Your task to perform on an android device: open app "Etsy: Buy & Sell Unique Items" (install if not already installed) Image 0: 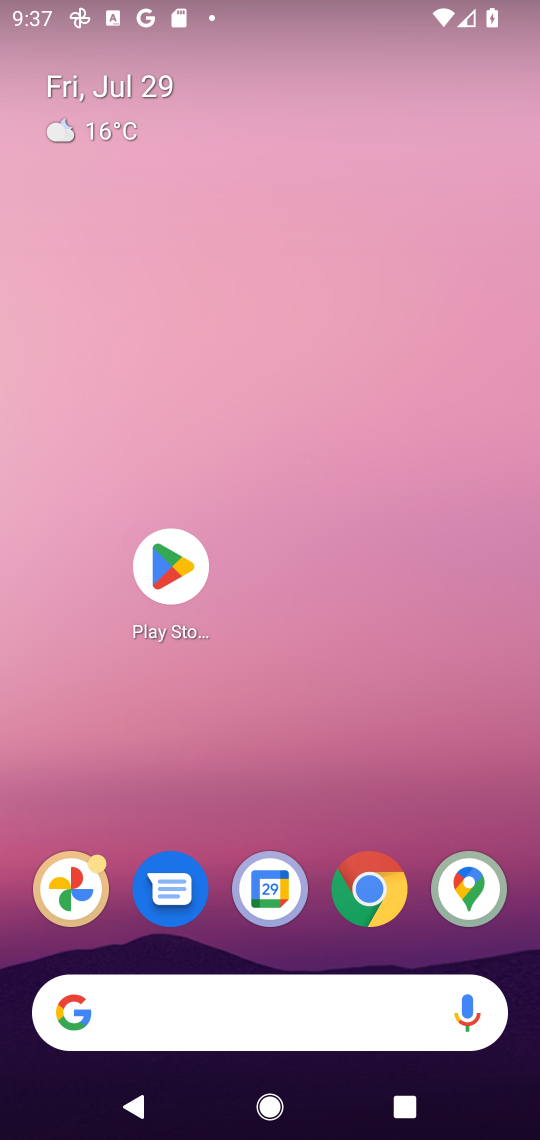
Step 0: click (162, 557)
Your task to perform on an android device: open app "Etsy: Buy & Sell Unique Items" (install if not already installed) Image 1: 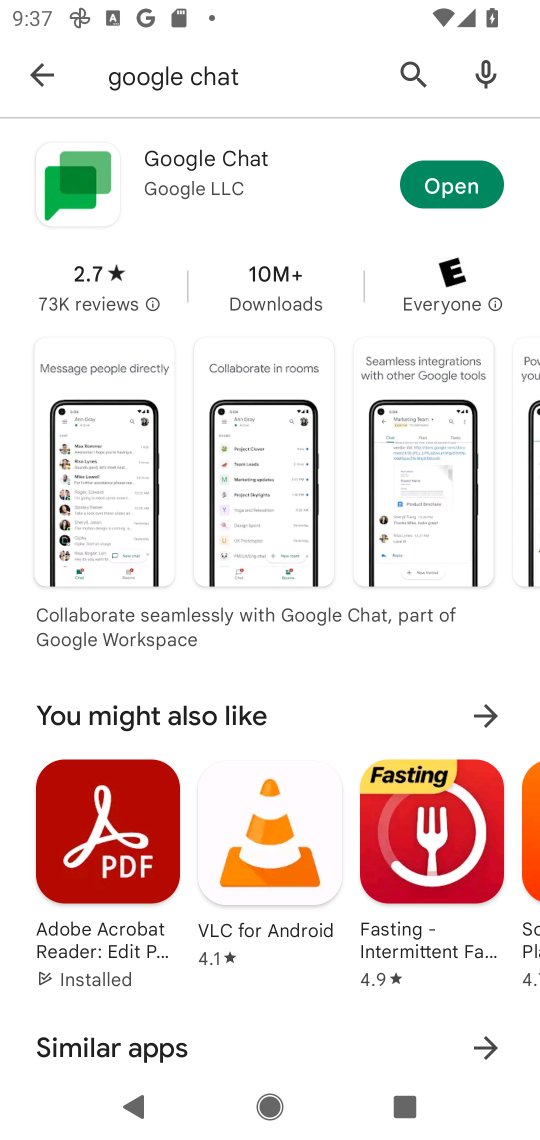
Step 1: click (403, 60)
Your task to perform on an android device: open app "Etsy: Buy & Sell Unique Items" (install if not already installed) Image 2: 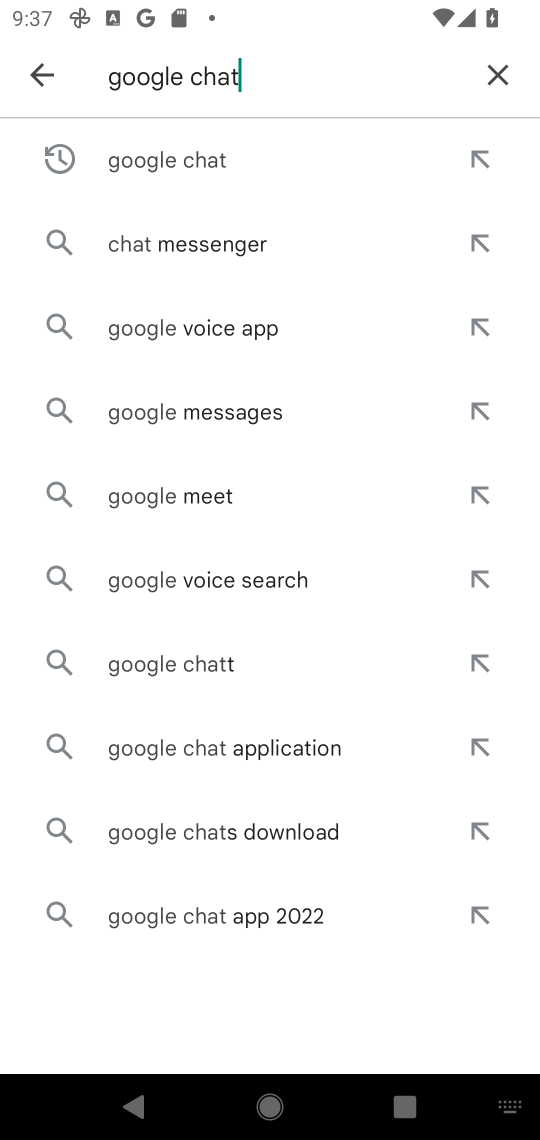
Step 2: click (491, 68)
Your task to perform on an android device: open app "Etsy: Buy & Sell Unique Items" (install if not already installed) Image 3: 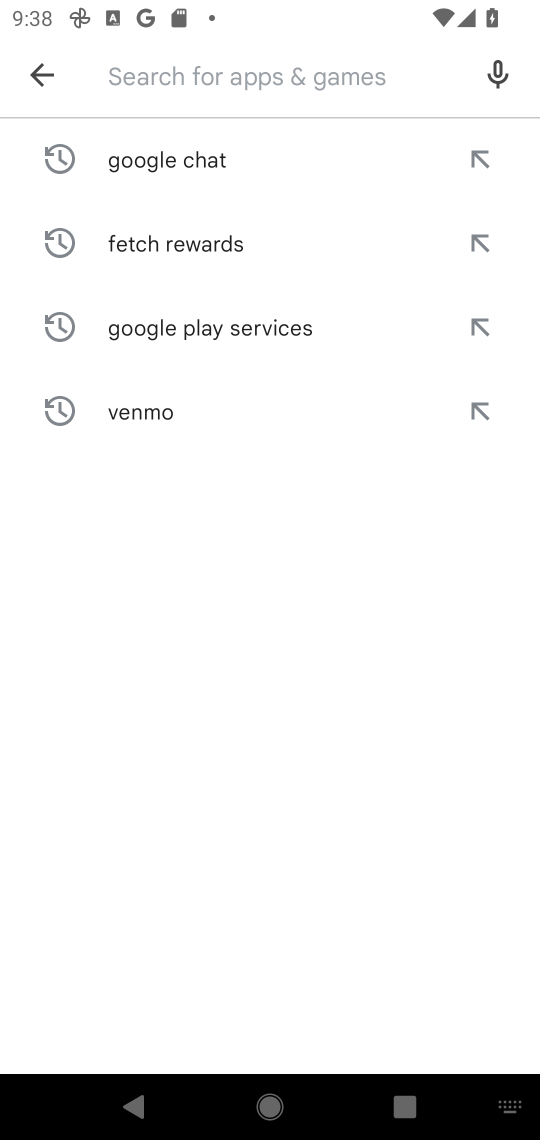
Step 3: type "Etsy: Buy & Sell Unique Items"
Your task to perform on an android device: open app "Etsy: Buy & Sell Unique Items" (install if not already installed) Image 4: 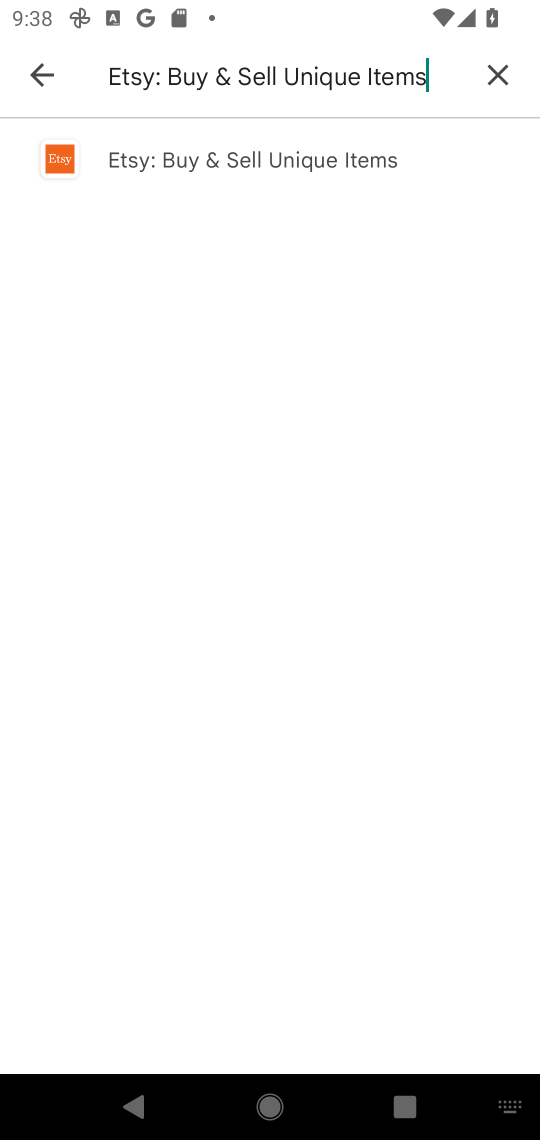
Step 4: click (287, 158)
Your task to perform on an android device: open app "Etsy: Buy & Sell Unique Items" (install if not already installed) Image 5: 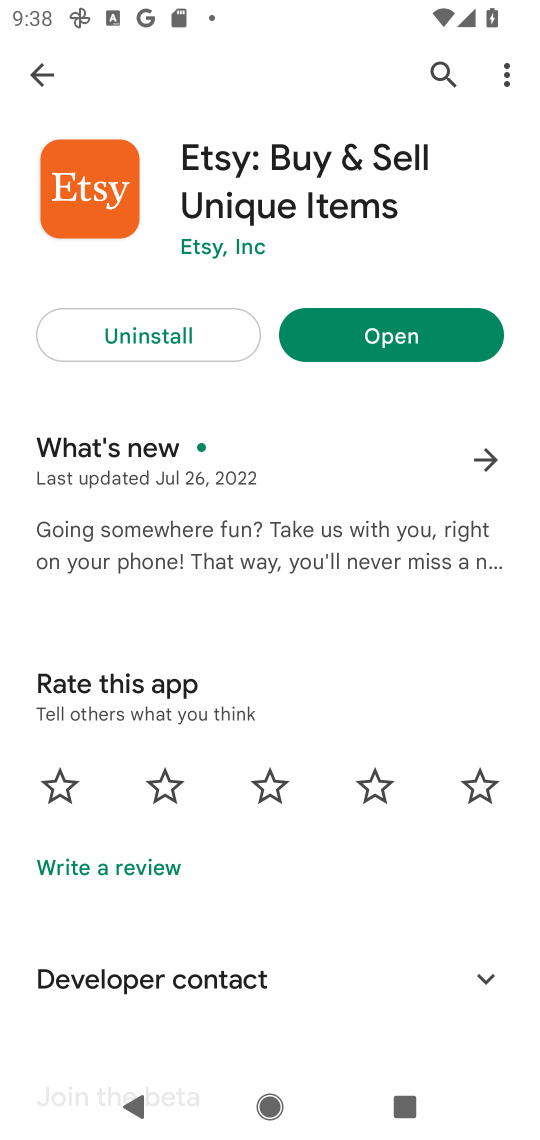
Step 5: click (420, 341)
Your task to perform on an android device: open app "Etsy: Buy & Sell Unique Items" (install if not already installed) Image 6: 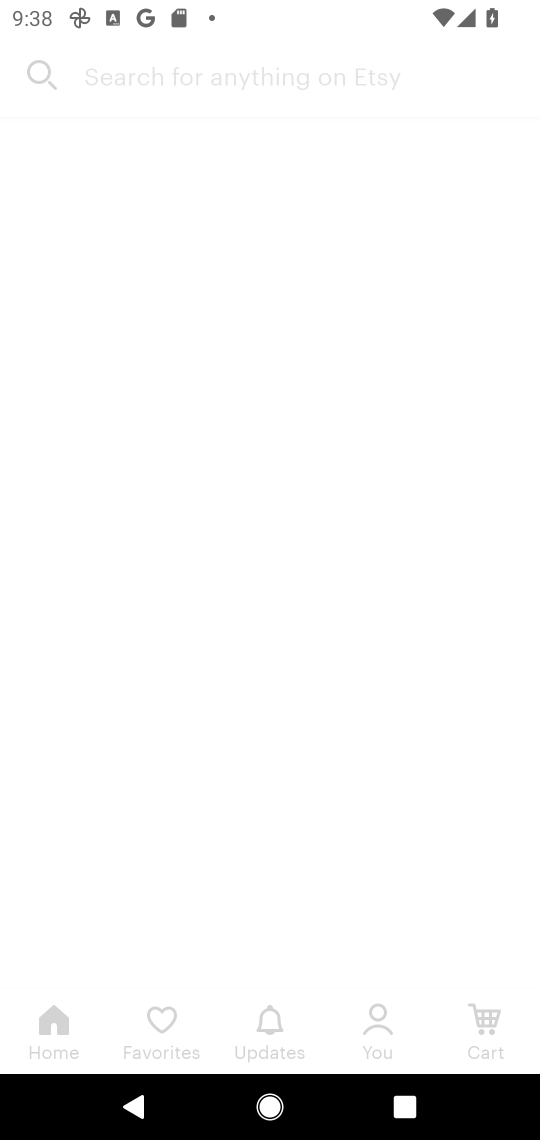
Step 6: task complete